Your task to perform on an android device: add a contact in the contacts app Image 0: 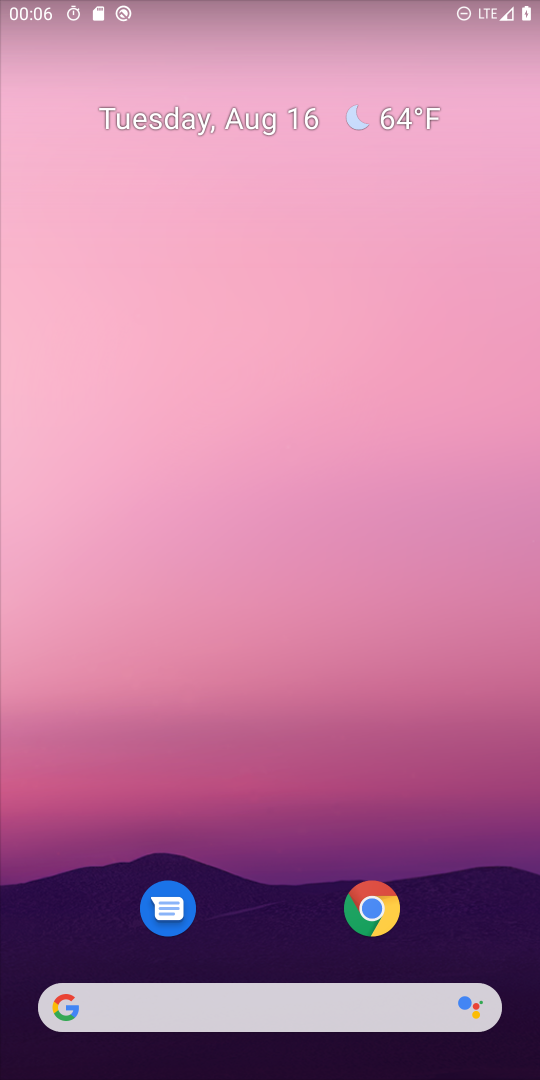
Step 0: press home button
Your task to perform on an android device: add a contact in the contacts app Image 1: 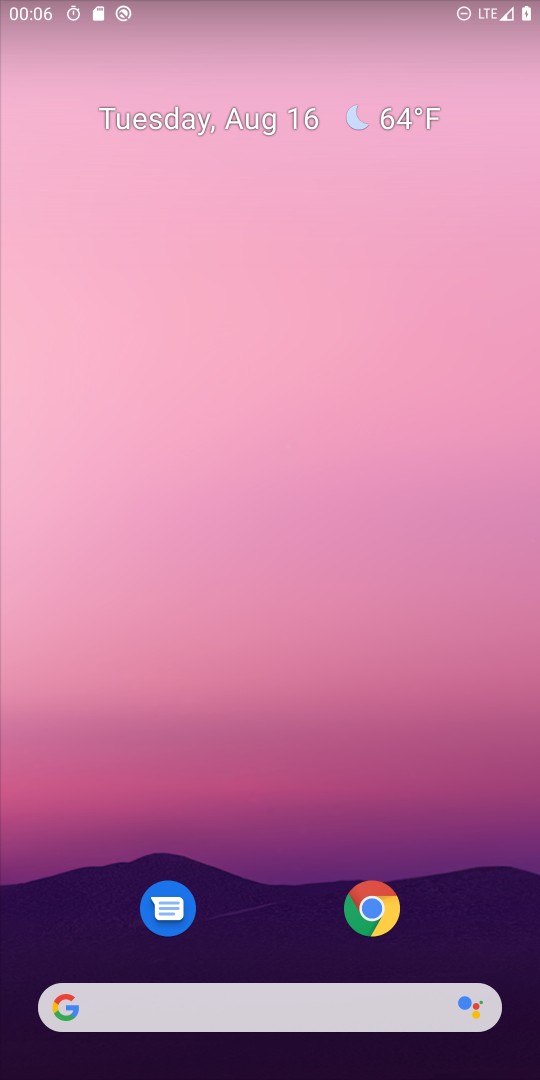
Step 1: drag from (275, 941) to (258, 434)
Your task to perform on an android device: add a contact in the contacts app Image 2: 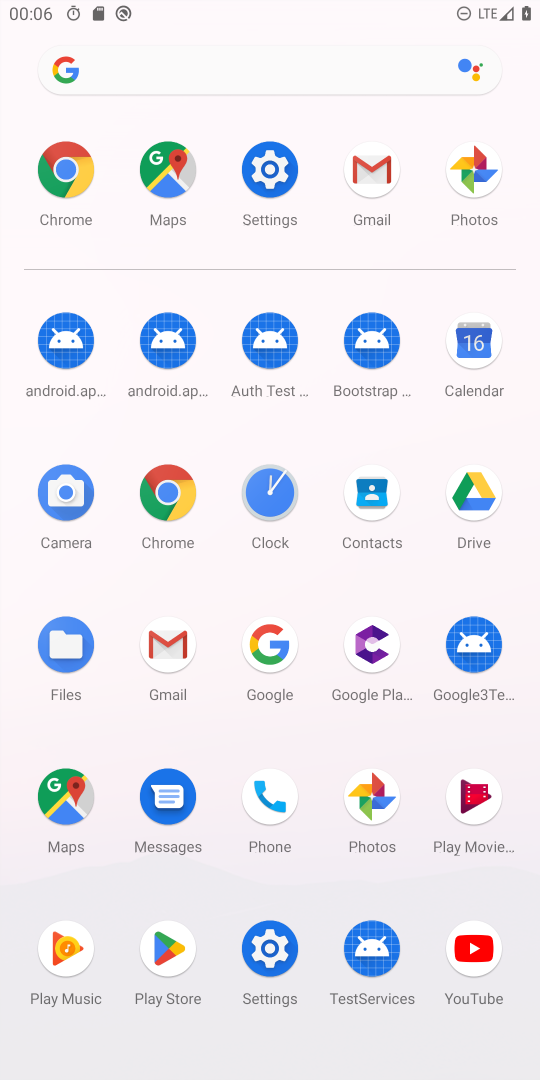
Step 2: click (376, 478)
Your task to perform on an android device: add a contact in the contacts app Image 3: 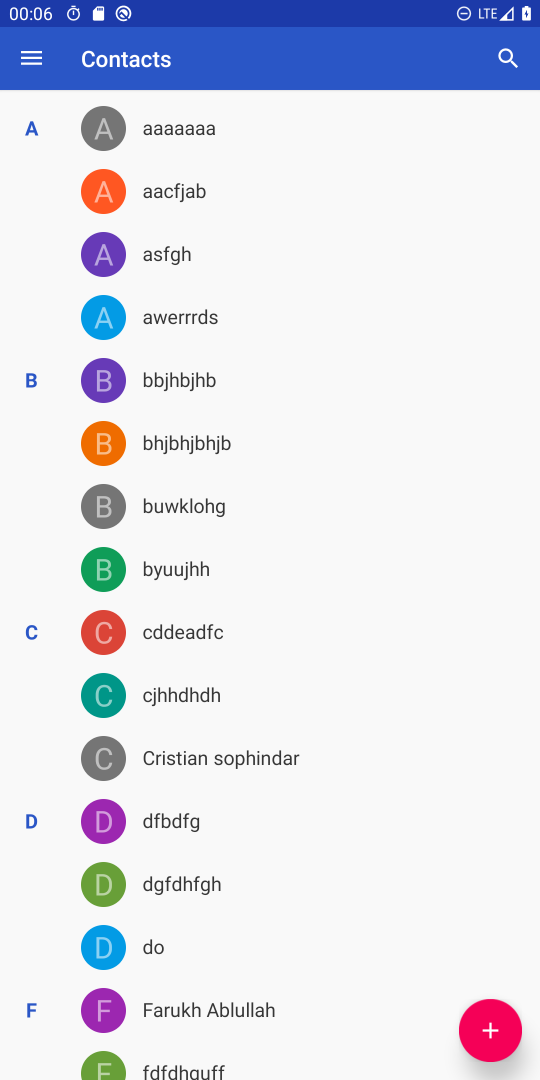
Step 3: click (492, 1012)
Your task to perform on an android device: add a contact in the contacts app Image 4: 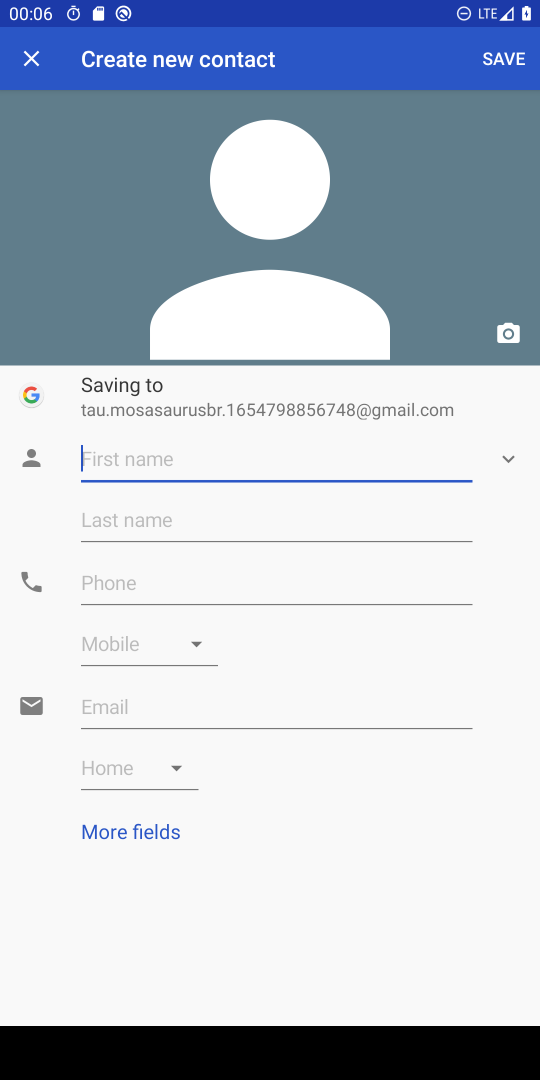
Step 4: type "ytrew"
Your task to perform on an android device: add a contact in the contacts app Image 5: 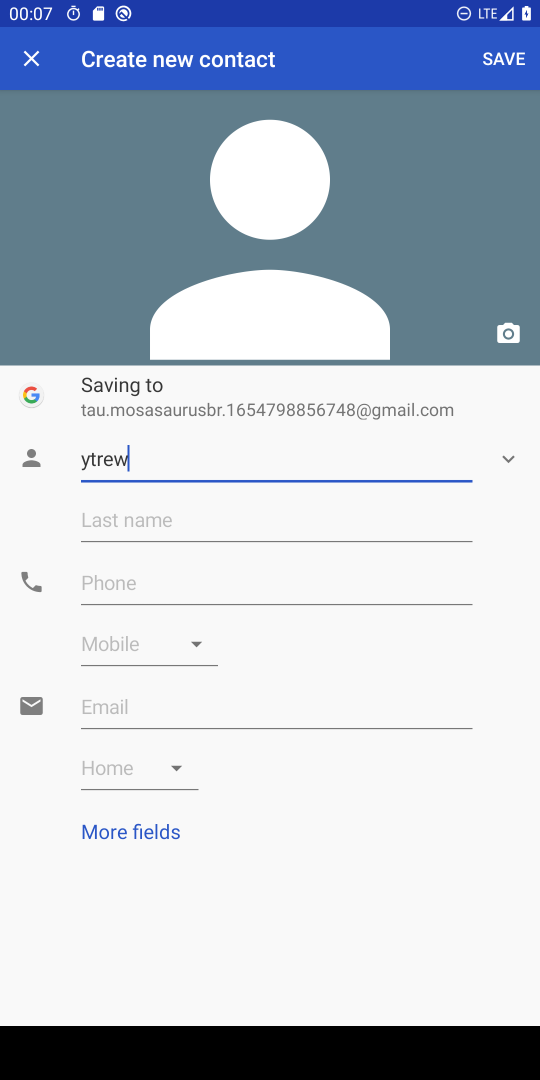
Step 5: click (497, 77)
Your task to perform on an android device: add a contact in the contacts app Image 6: 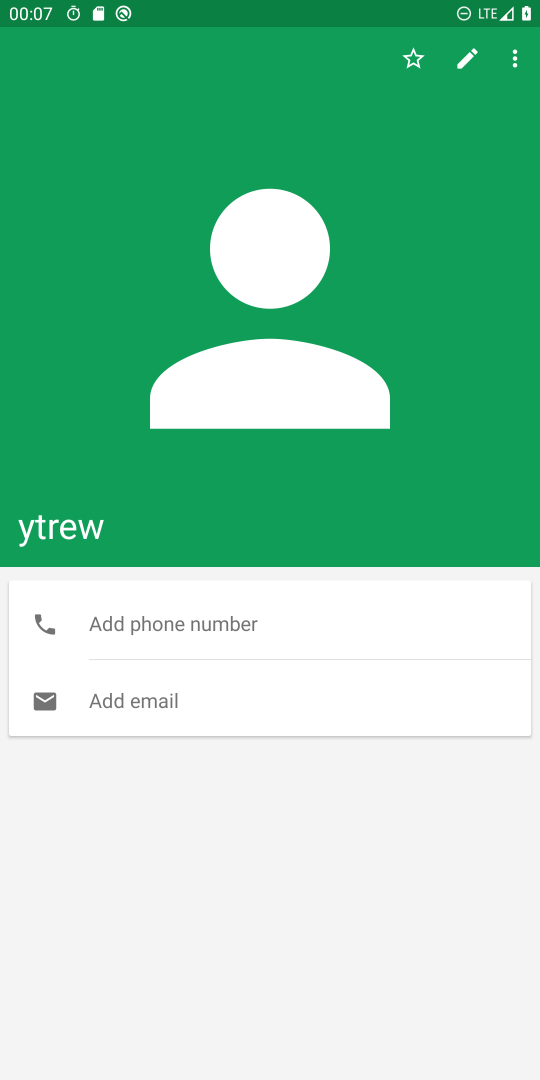
Step 6: task complete